Your task to perform on an android device: turn off wifi Image 0: 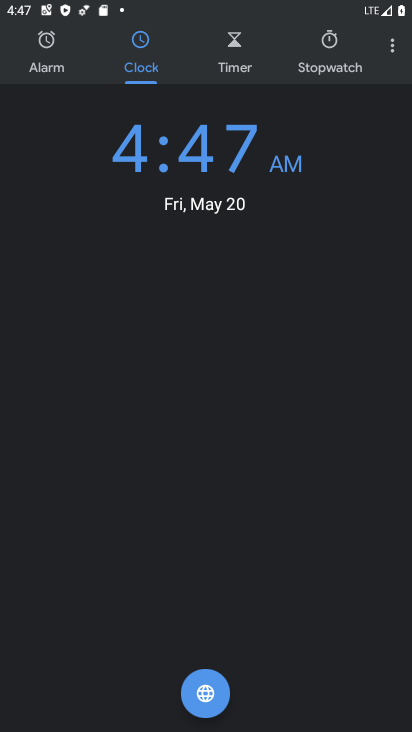
Step 0: press home button
Your task to perform on an android device: turn off wifi Image 1: 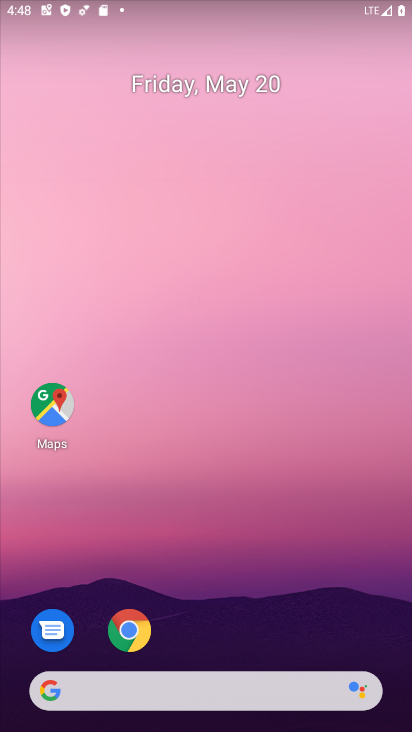
Step 1: drag from (207, 600) to (260, 49)
Your task to perform on an android device: turn off wifi Image 2: 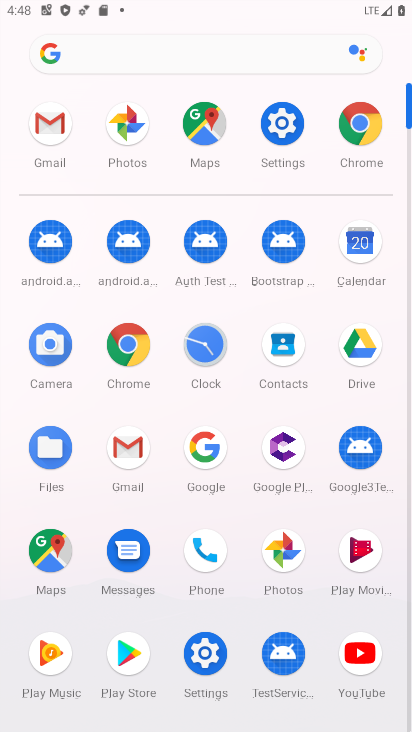
Step 2: click (276, 116)
Your task to perform on an android device: turn off wifi Image 3: 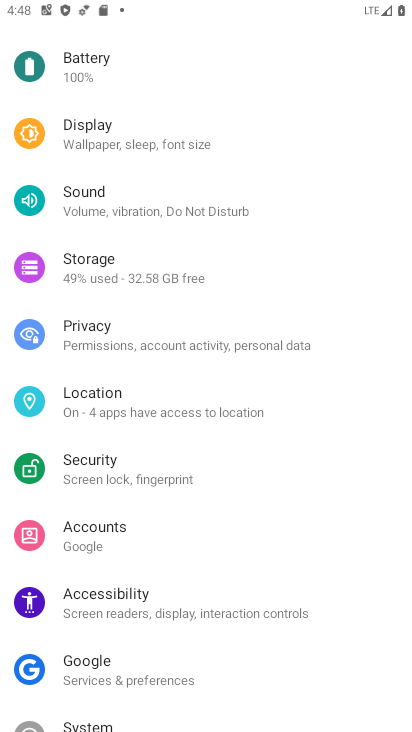
Step 3: drag from (249, 200) to (223, 577)
Your task to perform on an android device: turn off wifi Image 4: 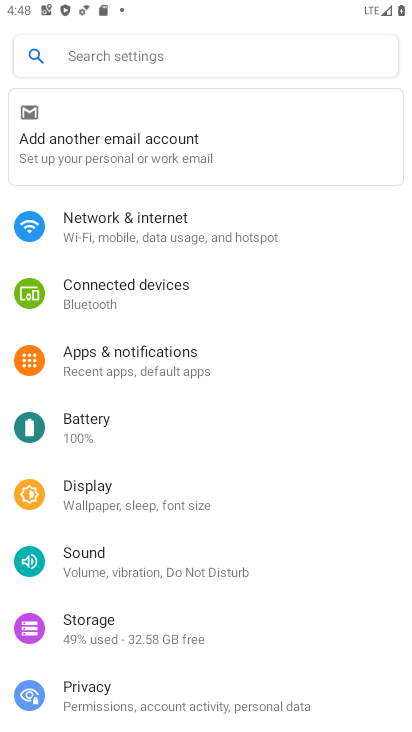
Step 4: click (160, 229)
Your task to perform on an android device: turn off wifi Image 5: 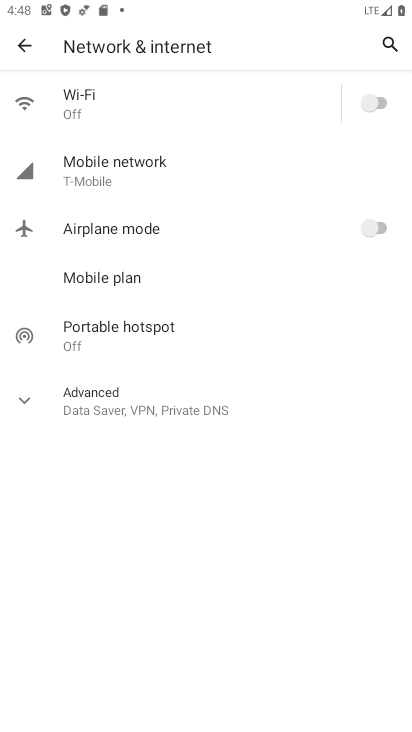
Step 5: task complete